Your task to perform on an android device: turn off sleep mode Image 0: 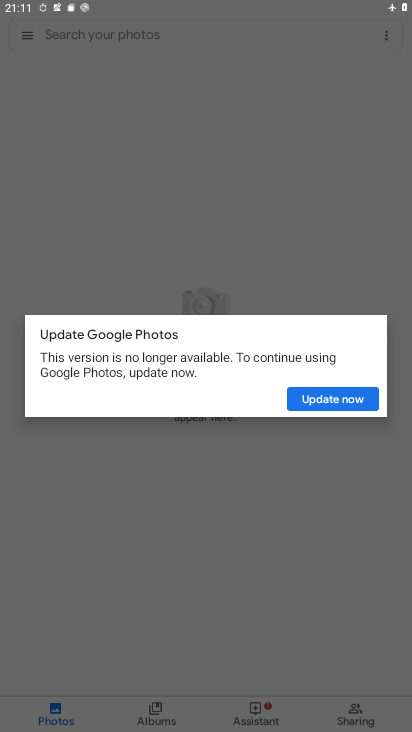
Step 0: press home button
Your task to perform on an android device: turn off sleep mode Image 1: 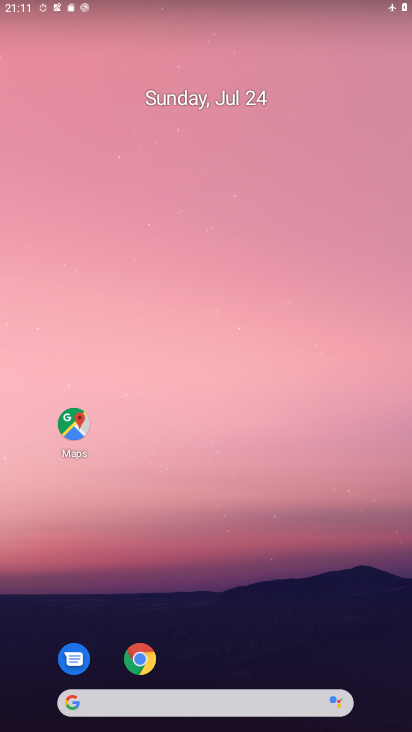
Step 1: drag from (216, 704) to (216, 235)
Your task to perform on an android device: turn off sleep mode Image 2: 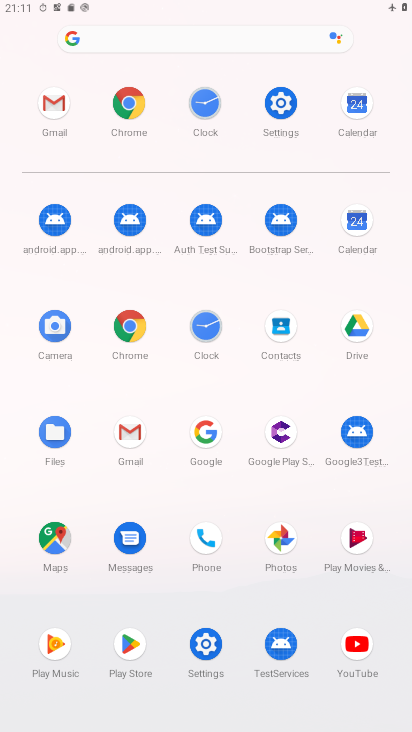
Step 2: click (276, 98)
Your task to perform on an android device: turn off sleep mode Image 3: 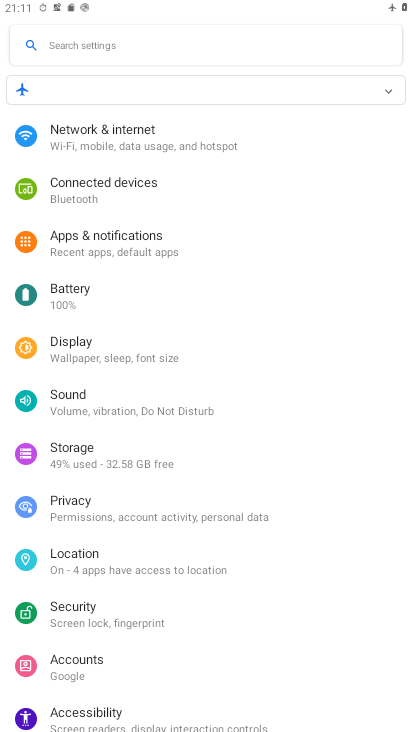
Step 3: click (112, 358)
Your task to perform on an android device: turn off sleep mode Image 4: 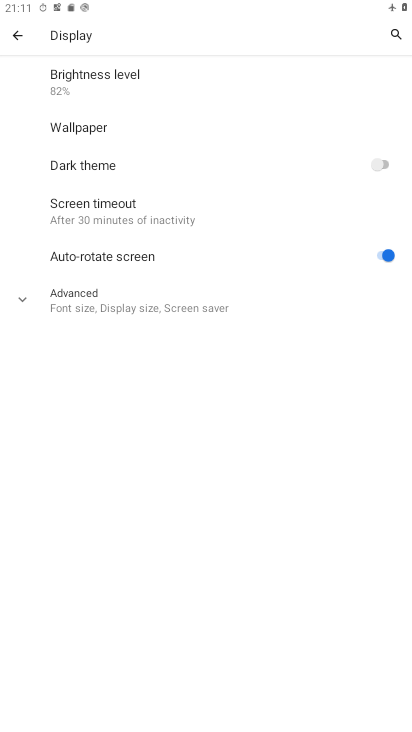
Step 4: click (160, 298)
Your task to perform on an android device: turn off sleep mode Image 5: 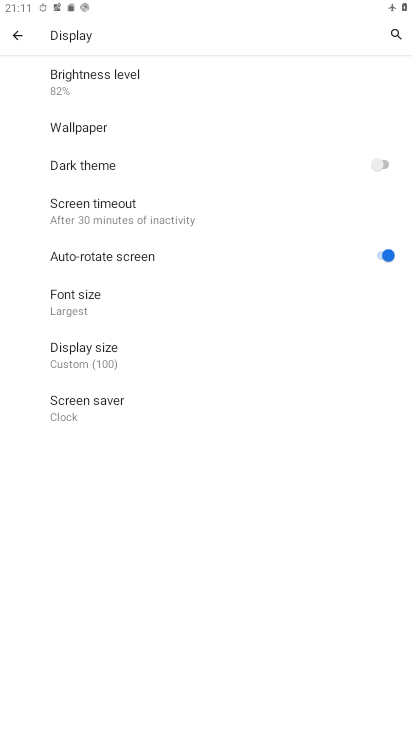
Step 5: task complete